Your task to perform on an android device: Show me popular videos on Youtube Image 0: 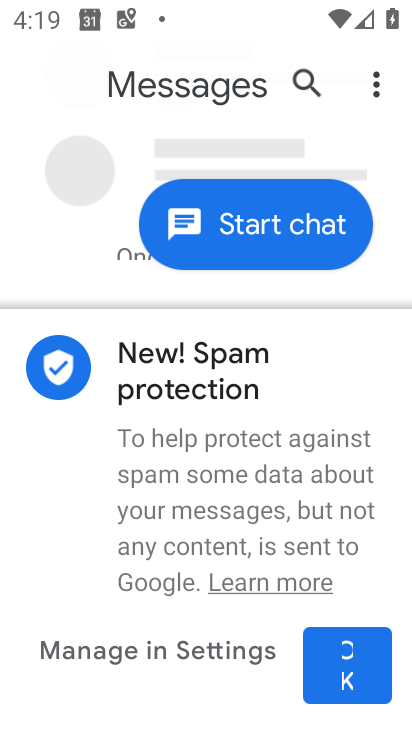
Step 0: press home button
Your task to perform on an android device: Show me popular videos on Youtube Image 1: 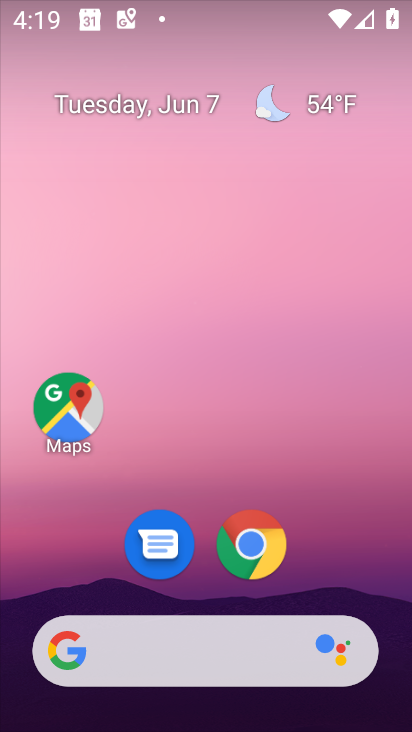
Step 1: drag from (350, 586) to (290, 139)
Your task to perform on an android device: Show me popular videos on Youtube Image 2: 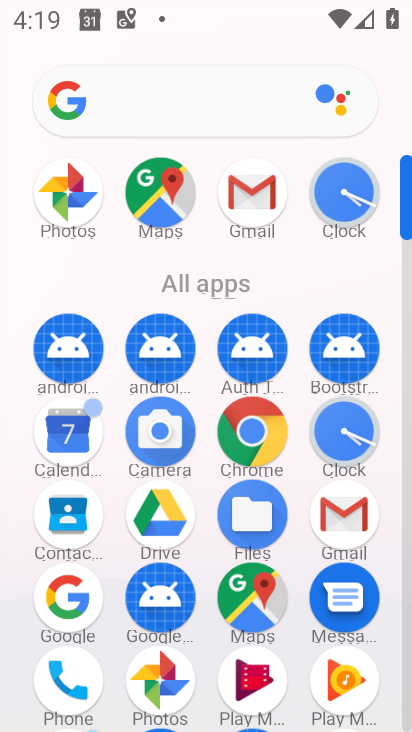
Step 2: click (409, 665)
Your task to perform on an android device: Show me popular videos on Youtube Image 3: 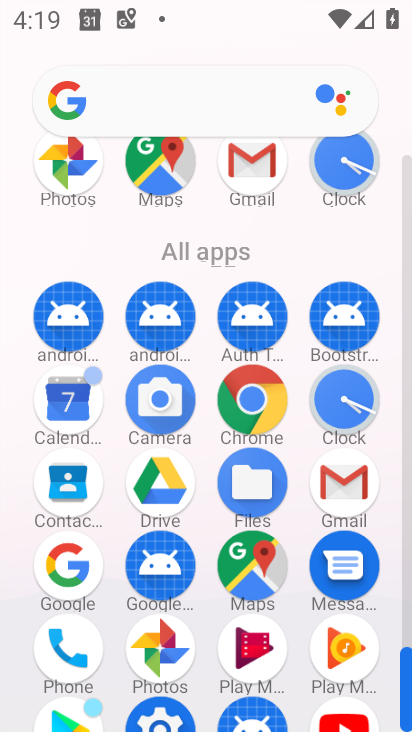
Step 3: click (344, 728)
Your task to perform on an android device: Show me popular videos on Youtube Image 4: 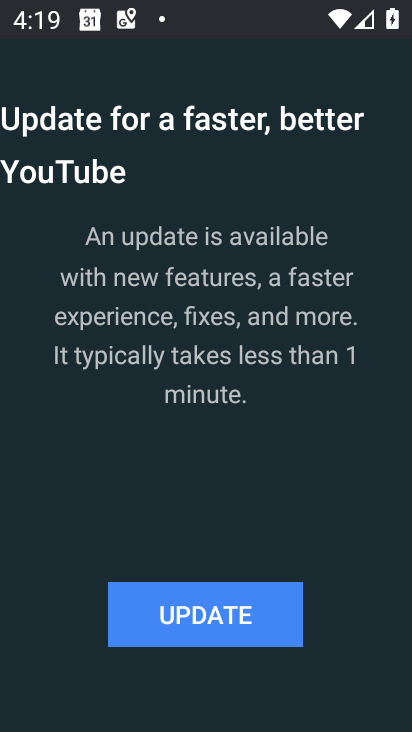
Step 4: click (233, 643)
Your task to perform on an android device: Show me popular videos on Youtube Image 5: 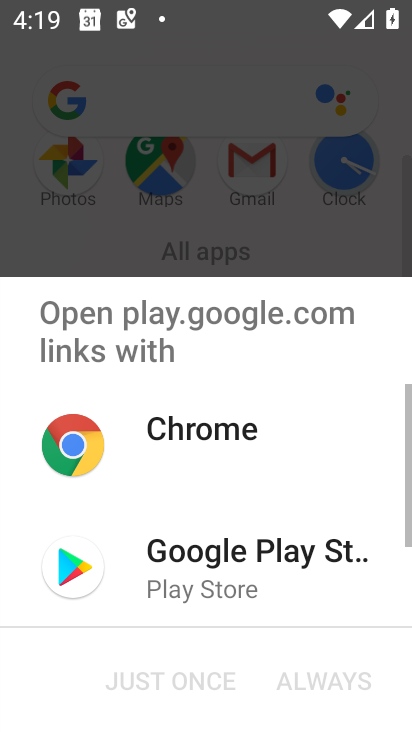
Step 5: click (190, 408)
Your task to perform on an android device: Show me popular videos on Youtube Image 6: 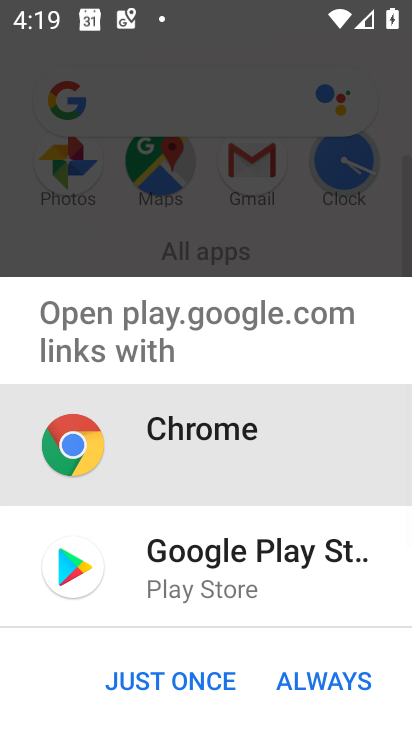
Step 6: click (329, 662)
Your task to perform on an android device: Show me popular videos on Youtube Image 7: 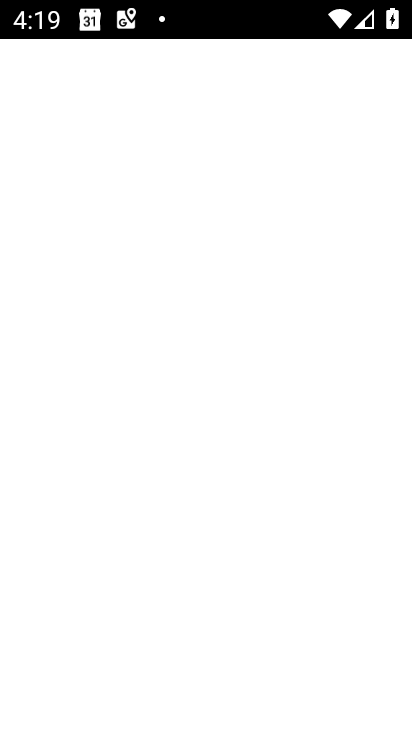
Step 7: task complete